Your task to perform on an android device: search for starred emails in the gmail app Image 0: 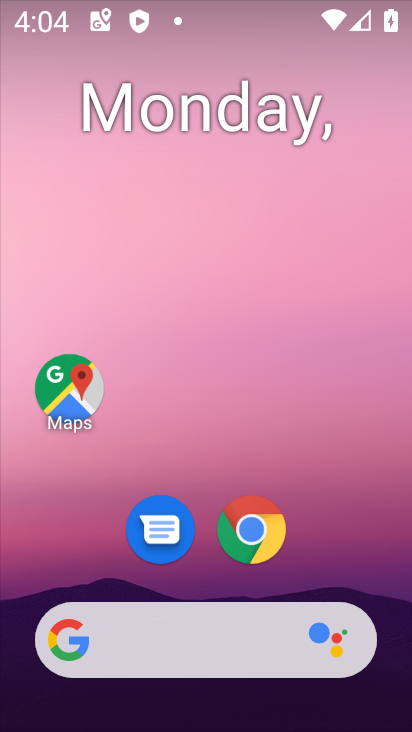
Step 0: drag from (228, 670) to (221, 162)
Your task to perform on an android device: search for starred emails in the gmail app Image 1: 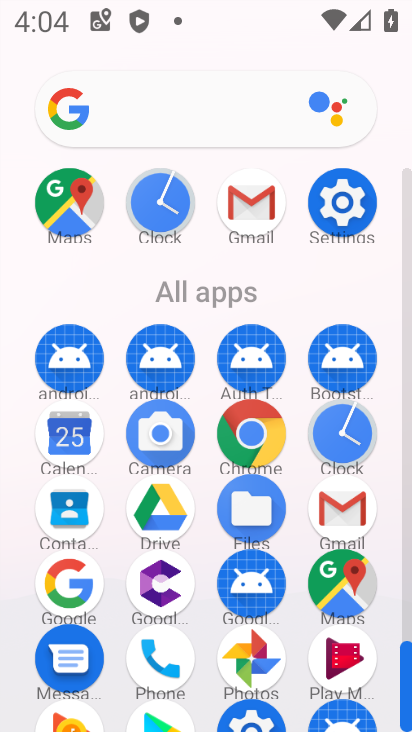
Step 1: click (343, 509)
Your task to perform on an android device: search for starred emails in the gmail app Image 2: 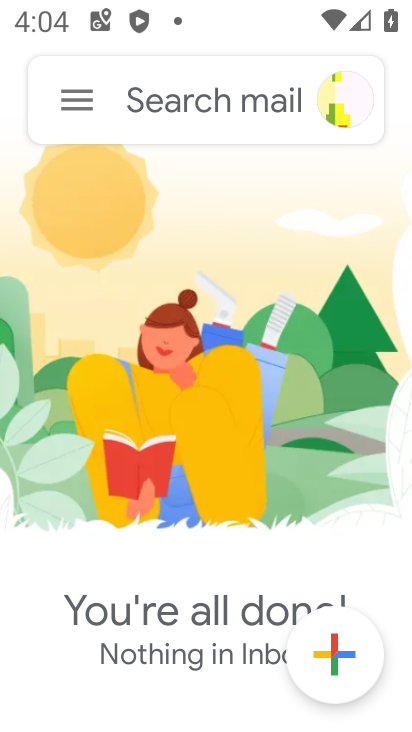
Step 2: click (67, 102)
Your task to perform on an android device: search for starred emails in the gmail app Image 3: 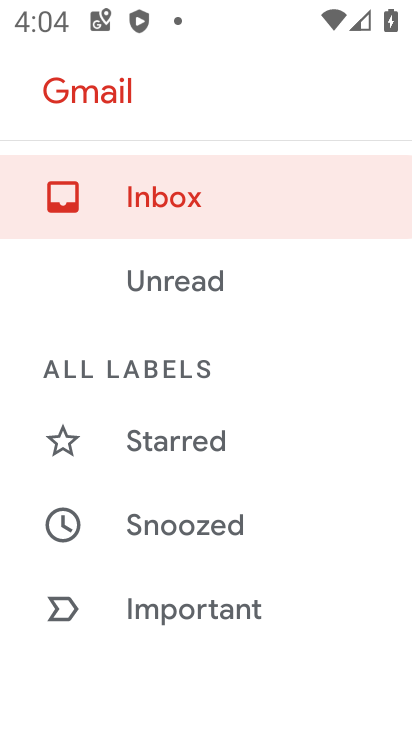
Step 3: click (185, 444)
Your task to perform on an android device: search for starred emails in the gmail app Image 4: 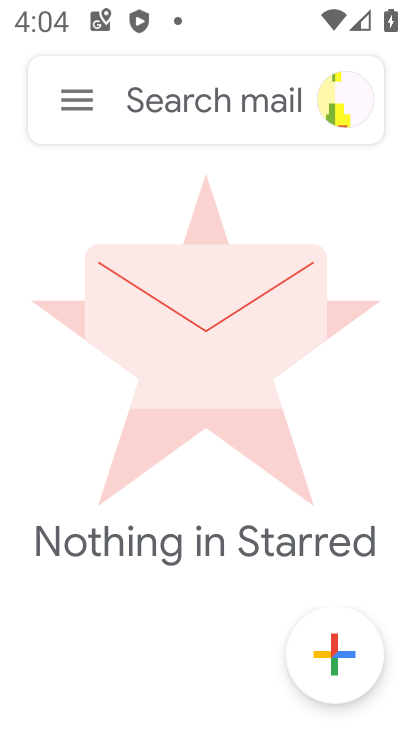
Step 4: click (78, 102)
Your task to perform on an android device: search for starred emails in the gmail app Image 5: 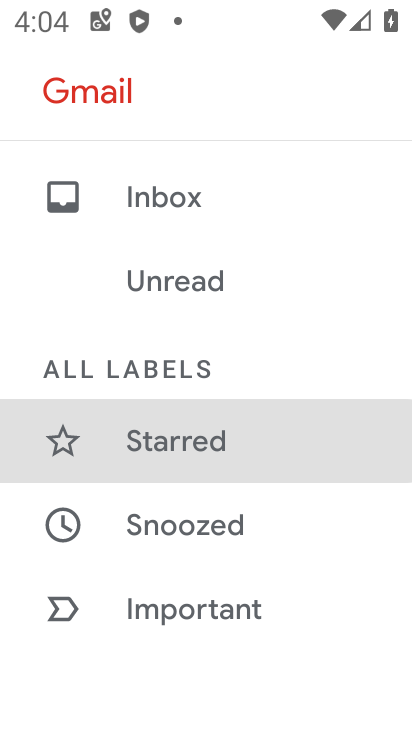
Step 5: click (160, 436)
Your task to perform on an android device: search for starred emails in the gmail app Image 6: 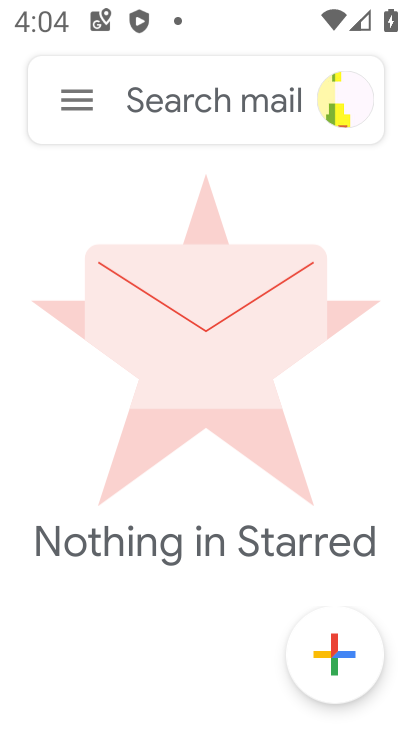
Step 6: task complete